Your task to perform on an android device: find snoozed emails in the gmail app Image 0: 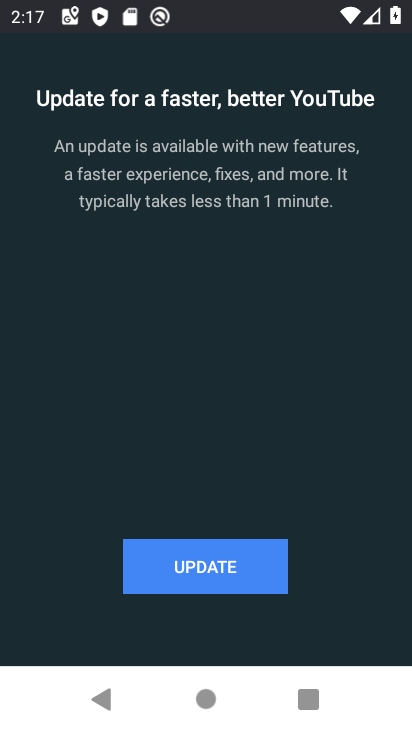
Step 0: press home button
Your task to perform on an android device: find snoozed emails in the gmail app Image 1: 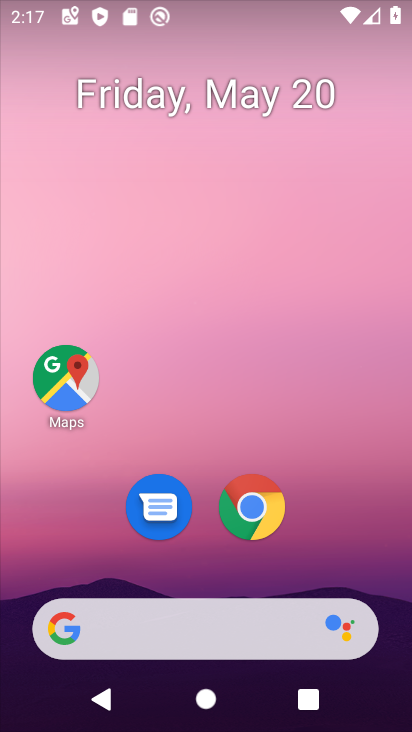
Step 1: drag from (216, 724) to (227, 150)
Your task to perform on an android device: find snoozed emails in the gmail app Image 2: 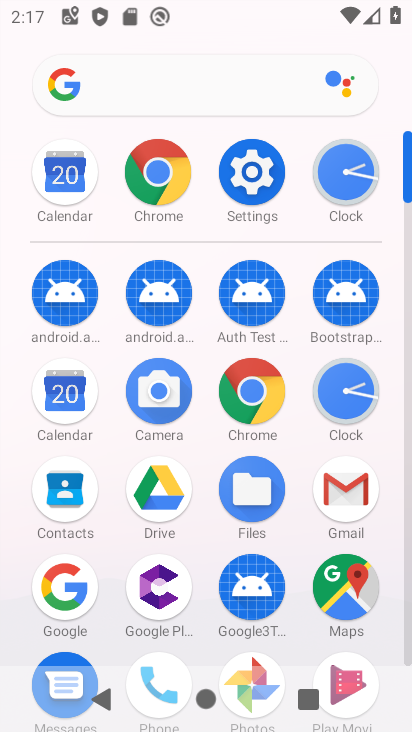
Step 2: click (340, 487)
Your task to perform on an android device: find snoozed emails in the gmail app Image 3: 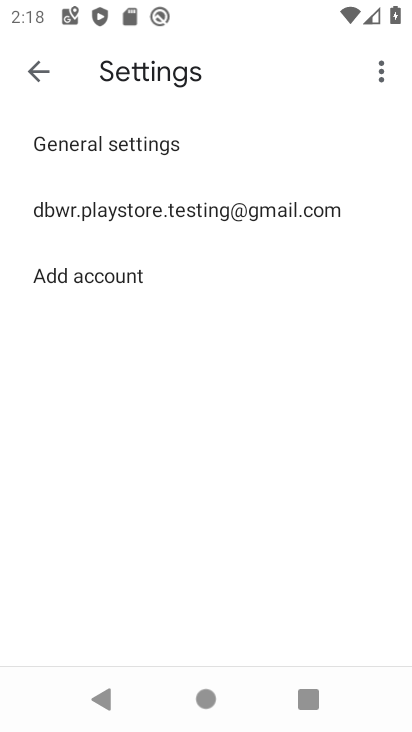
Step 3: click (39, 69)
Your task to perform on an android device: find snoozed emails in the gmail app Image 4: 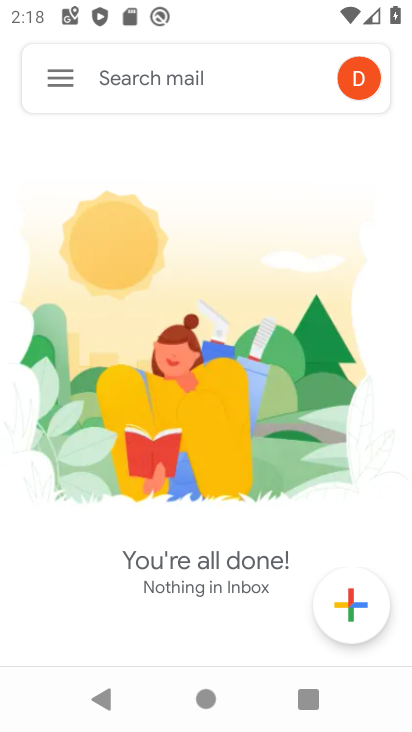
Step 4: click (53, 74)
Your task to perform on an android device: find snoozed emails in the gmail app Image 5: 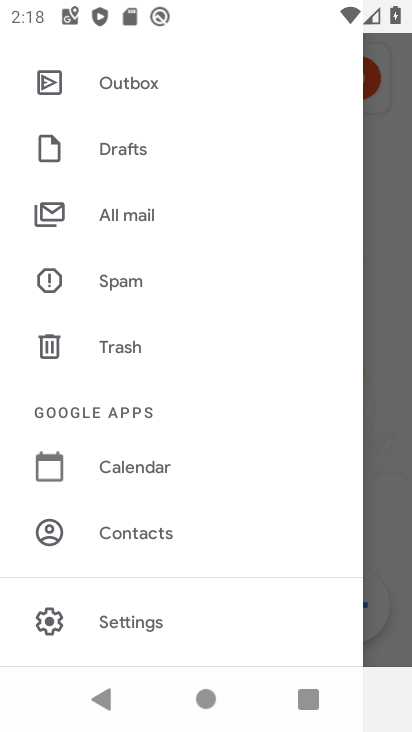
Step 5: drag from (162, 145) to (171, 502)
Your task to perform on an android device: find snoozed emails in the gmail app Image 6: 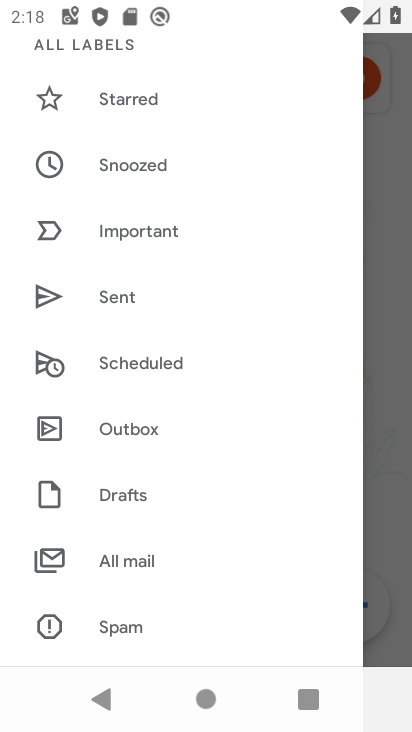
Step 6: click (141, 166)
Your task to perform on an android device: find snoozed emails in the gmail app Image 7: 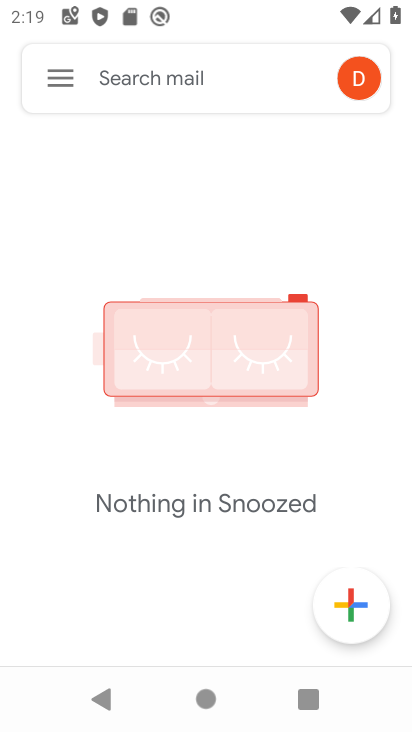
Step 7: task complete